Your task to perform on an android device: Go to network settings Image 0: 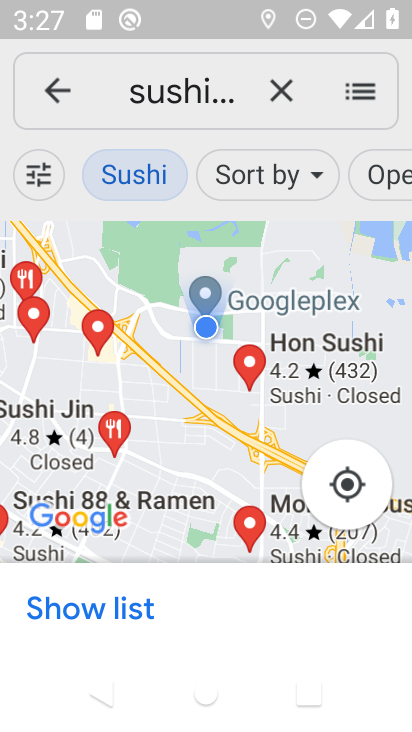
Step 0: press home button
Your task to perform on an android device: Go to network settings Image 1: 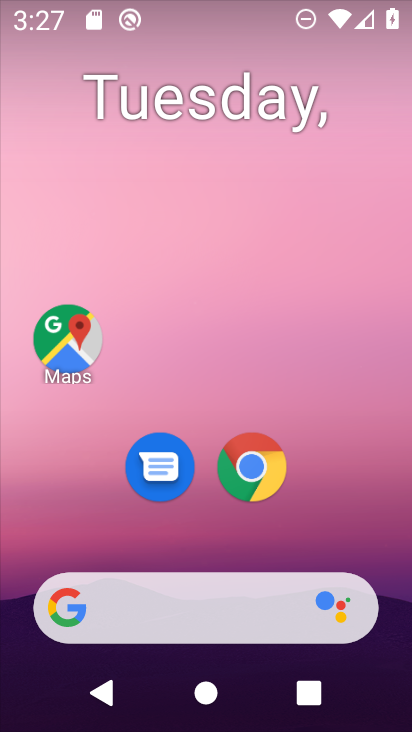
Step 1: drag from (212, 553) to (185, 0)
Your task to perform on an android device: Go to network settings Image 2: 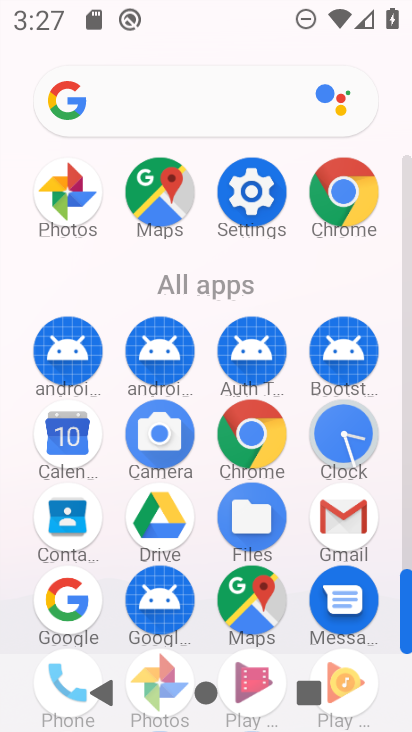
Step 2: click (244, 212)
Your task to perform on an android device: Go to network settings Image 3: 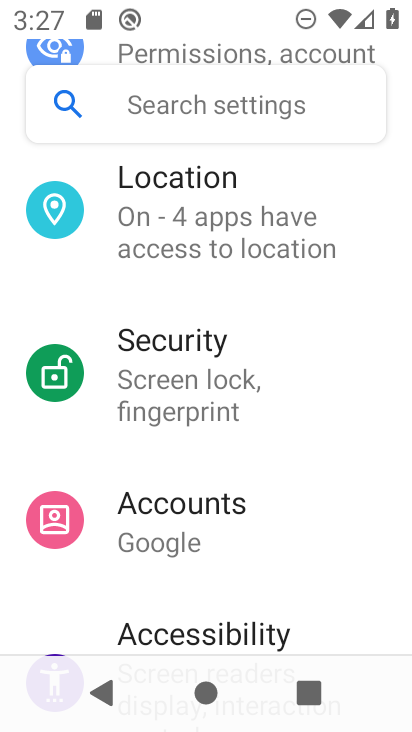
Step 3: drag from (197, 232) to (169, 651)
Your task to perform on an android device: Go to network settings Image 4: 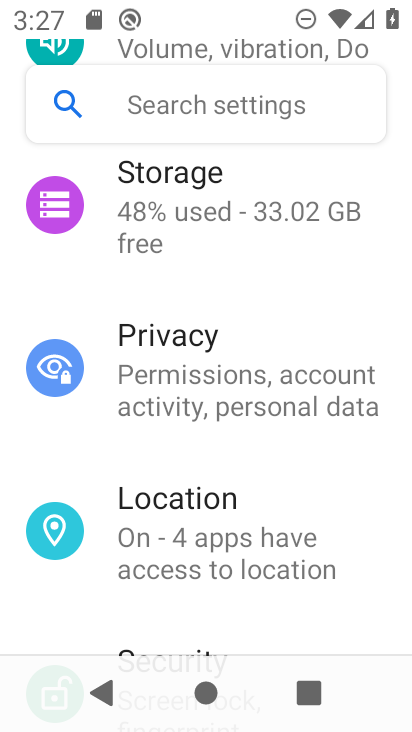
Step 4: drag from (119, 201) to (143, 543)
Your task to perform on an android device: Go to network settings Image 5: 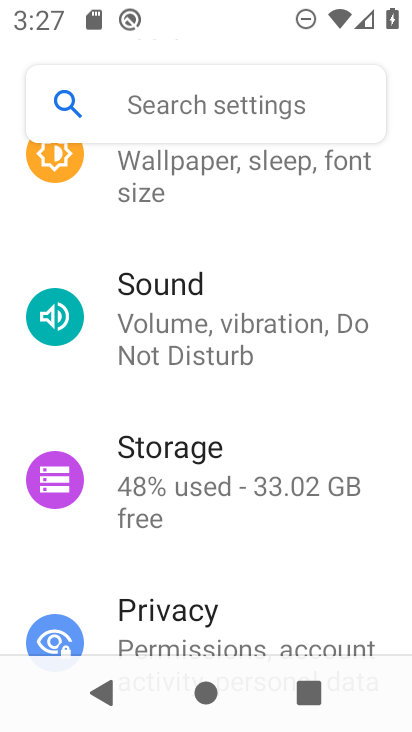
Step 5: drag from (294, 255) to (301, 519)
Your task to perform on an android device: Go to network settings Image 6: 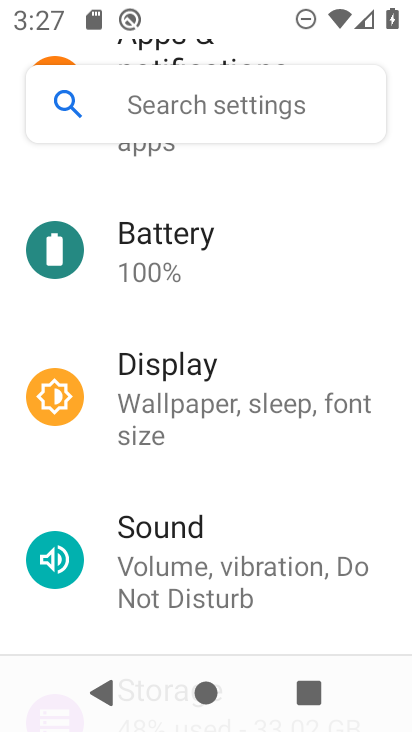
Step 6: drag from (296, 242) to (243, 705)
Your task to perform on an android device: Go to network settings Image 7: 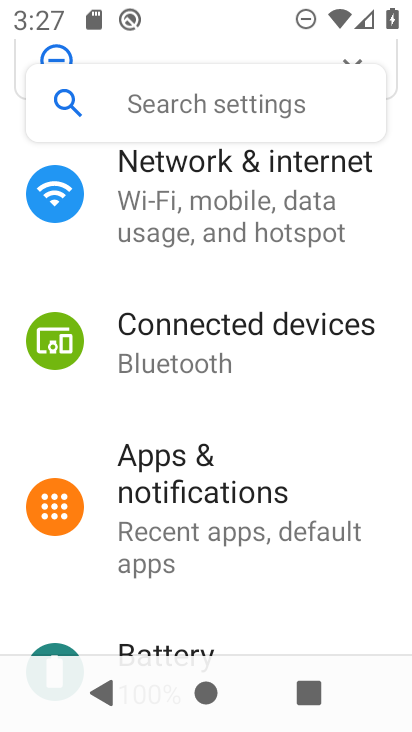
Step 7: click (178, 189)
Your task to perform on an android device: Go to network settings Image 8: 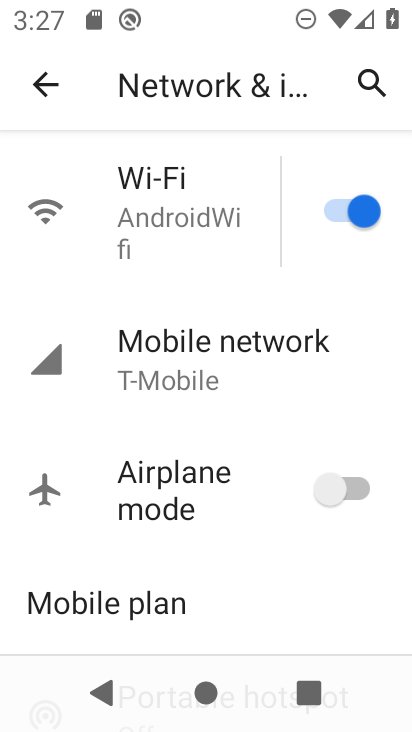
Step 8: click (239, 333)
Your task to perform on an android device: Go to network settings Image 9: 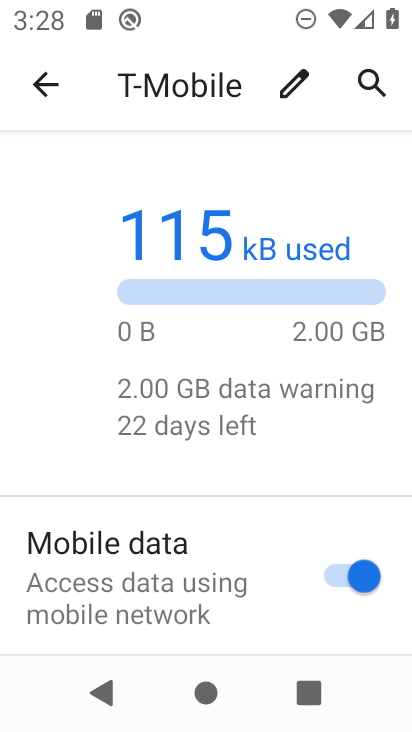
Step 9: task complete